Your task to perform on an android device: manage bookmarks in the chrome app Image 0: 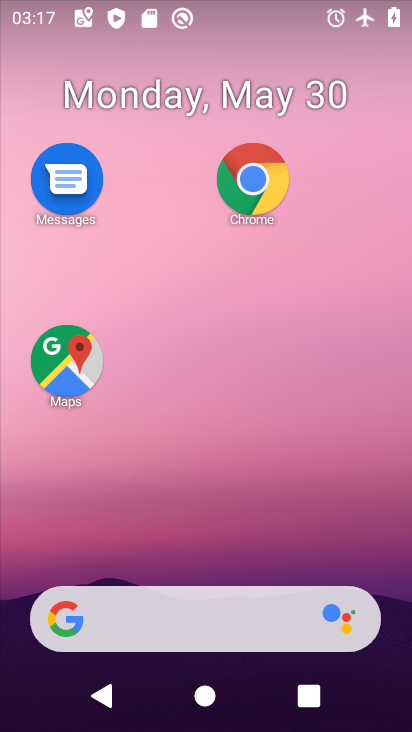
Step 0: drag from (251, 569) to (200, 12)
Your task to perform on an android device: manage bookmarks in the chrome app Image 1: 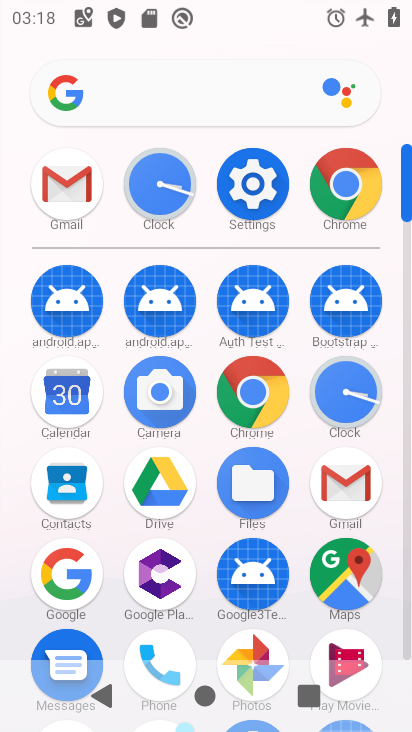
Step 1: click (258, 401)
Your task to perform on an android device: manage bookmarks in the chrome app Image 2: 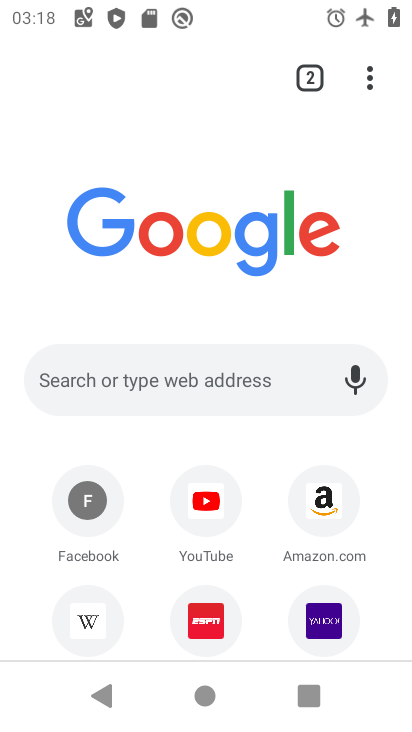
Step 2: click (376, 78)
Your task to perform on an android device: manage bookmarks in the chrome app Image 3: 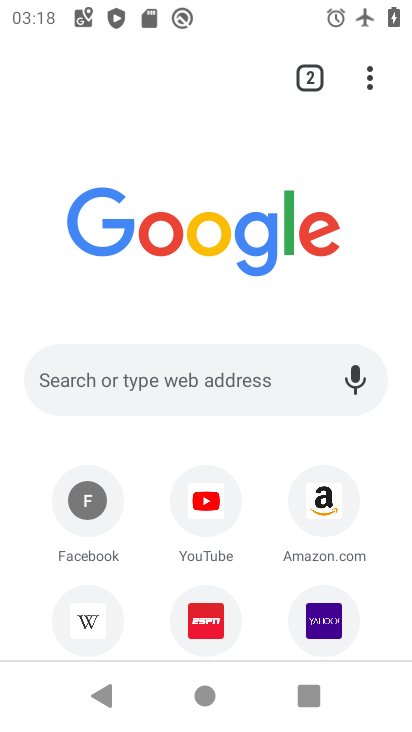
Step 3: click (373, 82)
Your task to perform on an android device: manage bookmarks in the chrome app Image 4: 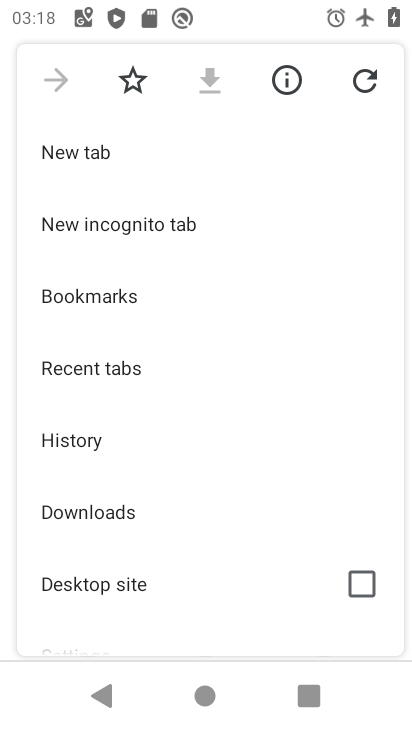
Step 4: click (113, 307)
Your task to perform on an android device: manage bookmarks in the chrome app Image 5: 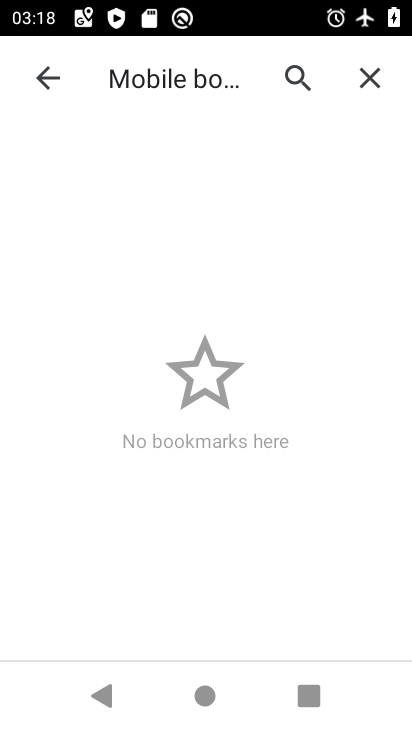
Step 5: task complete